Your task to perform on an android device: turn off airplane mode Image 0: 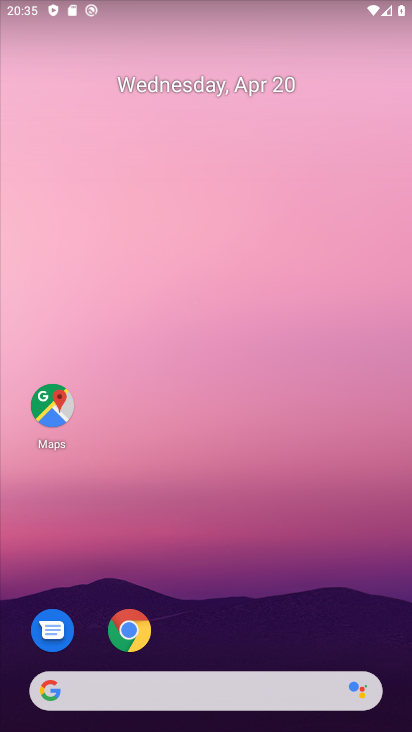
Step 0: drag from (256, 363) to (251, 79)
Your task to perform on an android device: turn off airplane mode Image 1: 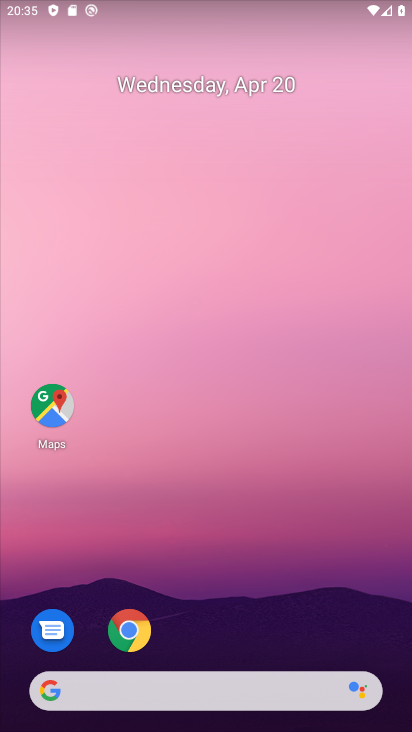
Step 1: drag from (238, 510) to (243, 25)
Your task to perform on an android device: turn off airplane mode Image 2: 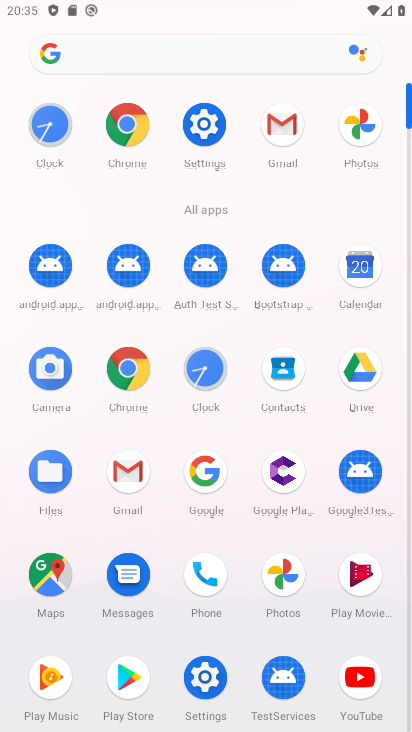
Step 2: click (211, 123)
Your task to perform on an android device: turn off airplane mode Image 3: 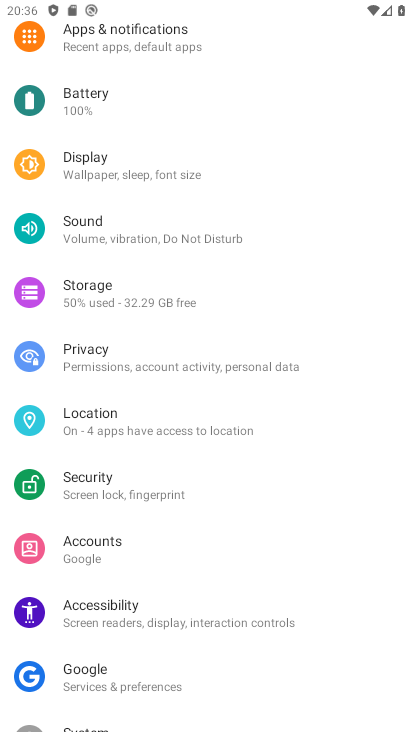
Step 3: drag from (209, 115) to (197, 529)
Your task to perform on an android device: turn off airplane mode Image 4: 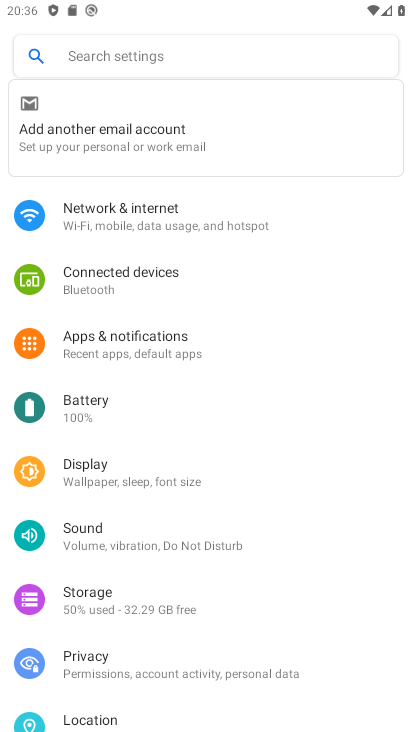
Step 4: click (127, 221)
Your task to perform on an android device: turn off airplane mode Image 5: 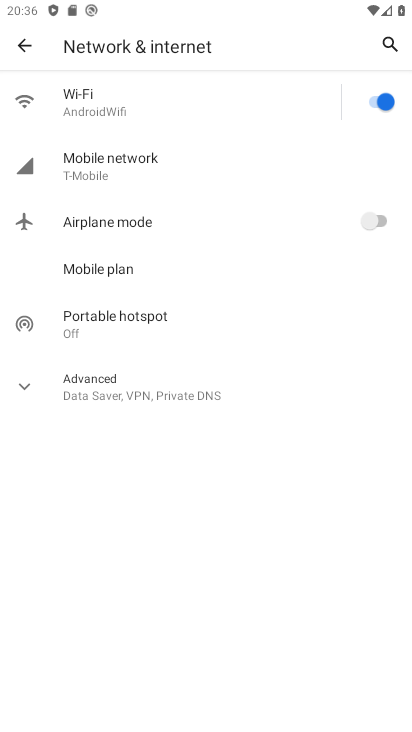
Step 5: task complete